Your task to perform on an android device: Toggle the flashlight Image 0: 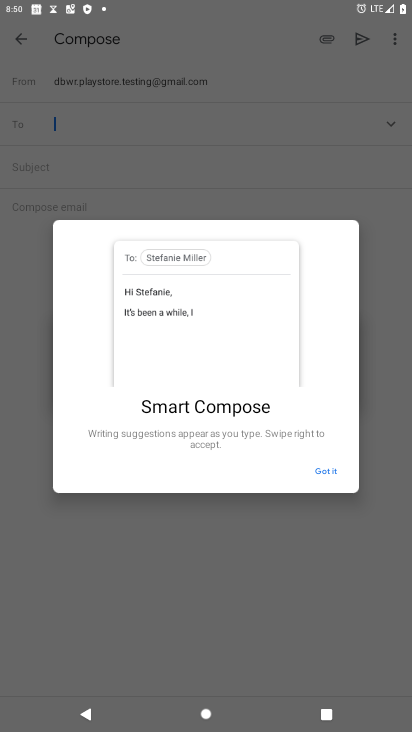
Step 0: press home button
Your task to perform on an android device: Toggle the flashlight Image 1: 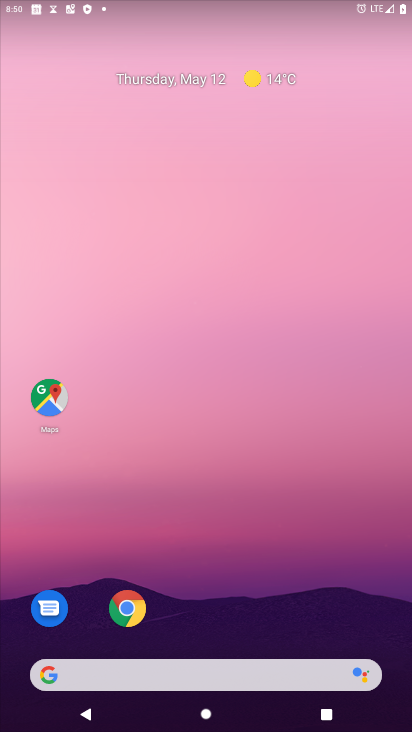
Step 1: drag from (257, 10) to (272, 349)
Your task to perform on an android device: Toggle the flashlight Image 2: 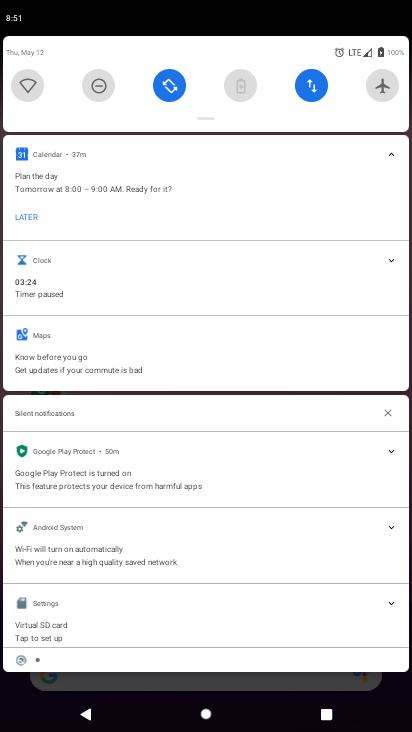
Step 2: drag from (223, 69) to (197, 479)
Your task to perform on an android device: Toggle the flashlight Image 3: 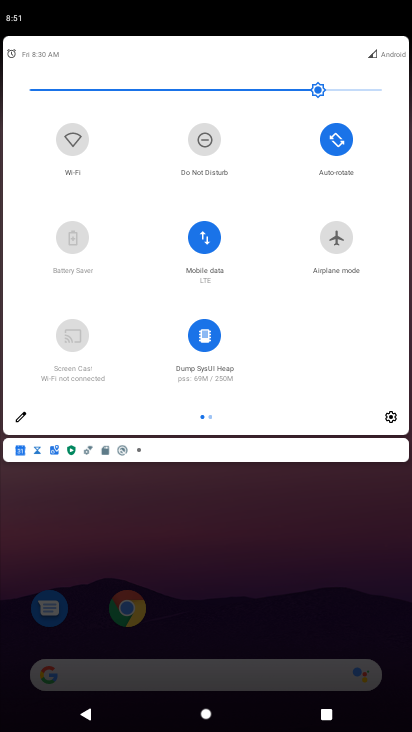
Step 3: drag from (299, 338) to (0, 427)
Your task to perform on an android device: Toggle the flashlight Image 4: 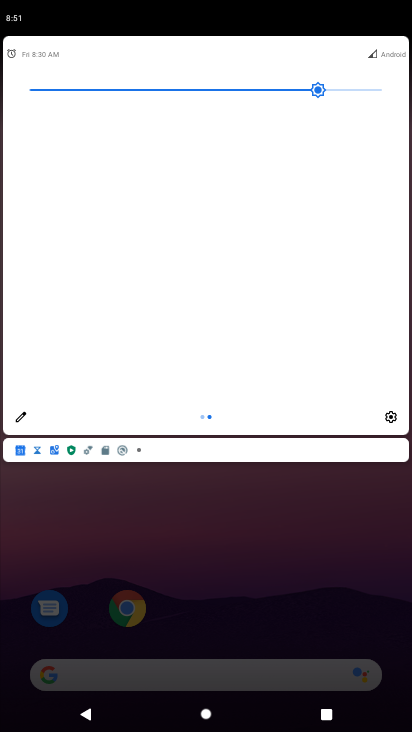
Step 4: click (22, 417)
Your task to perform on an android device: Toggle the flashlight Image 5: 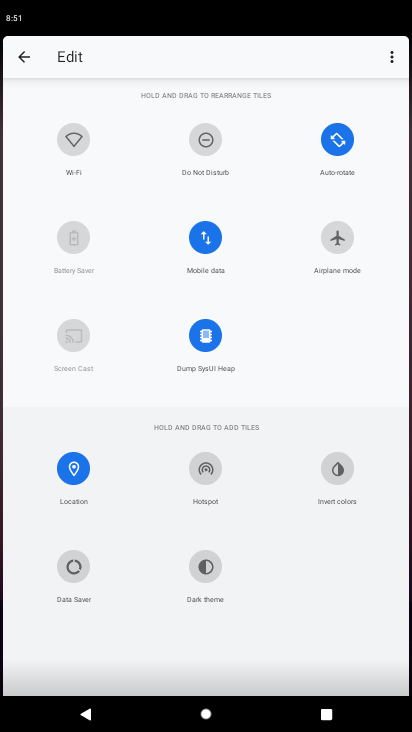
Step 5: task complete